Your task to perform on an android device: change your default location settings in chrome Image 0: 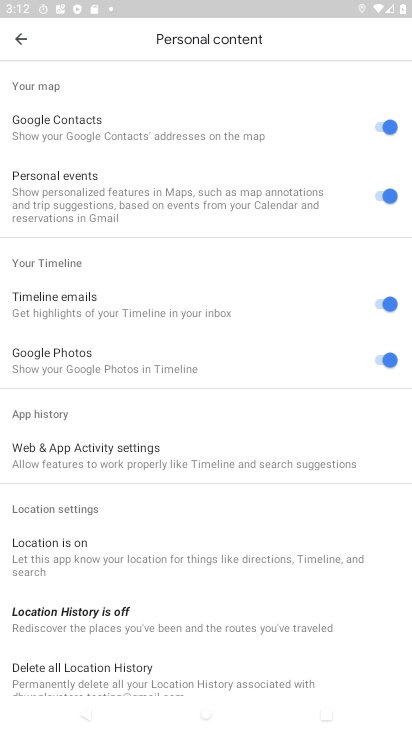
Step 0: press home button
Your task to perform on an android device: change your default location settings in chrome Image 1: 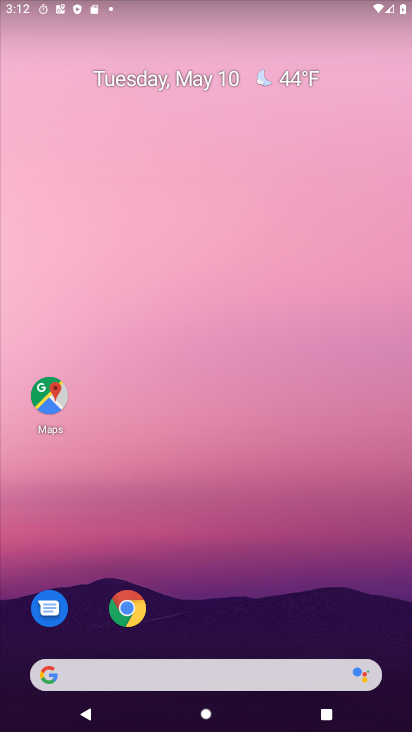
Step 1: click (130, 611)
Your task to perform on an android device: change your default location settings in chrome Image 2: 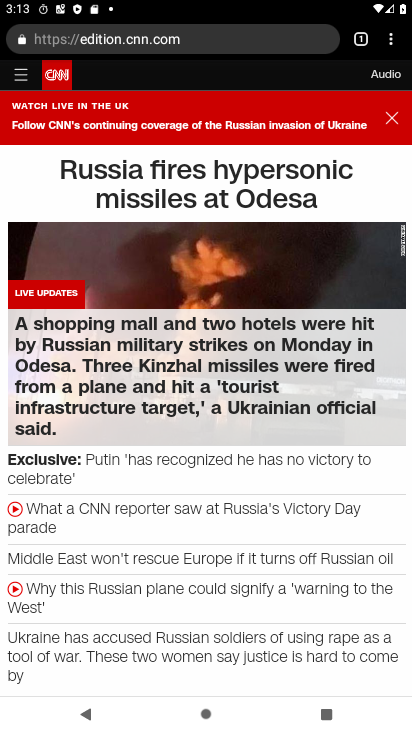
Step 2: click (394, 43)
Your task to perform on an android device: change your default location settings in chrome Image 3: 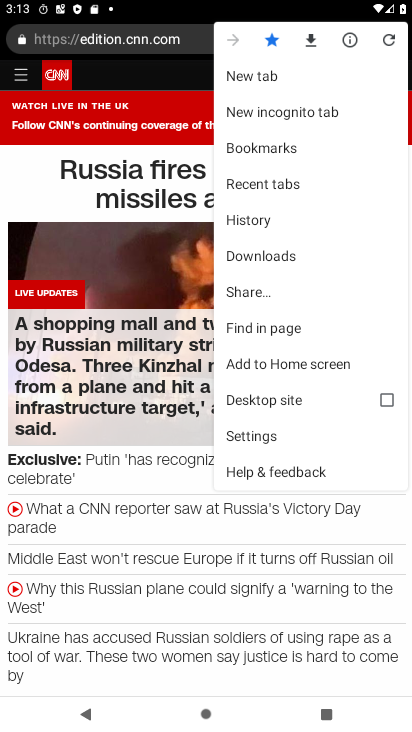
Step 3: click (251, 436)
Your task to perform on an android device: change your default location settings in chrome Image 4: 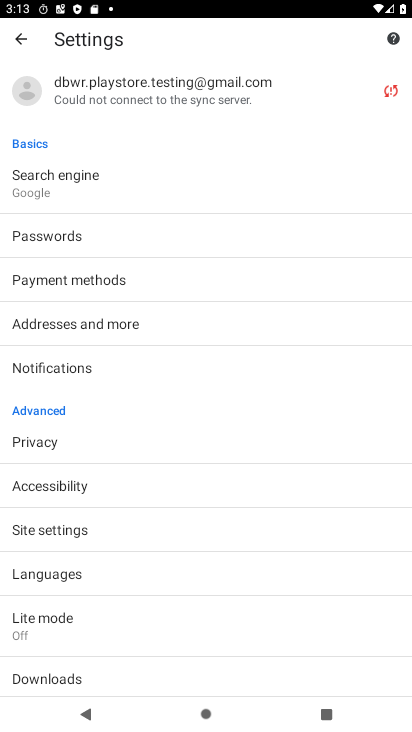
Step 4: click (35, 526)
Your task to perform on an android device: change your default location settings in chrome Image 5: 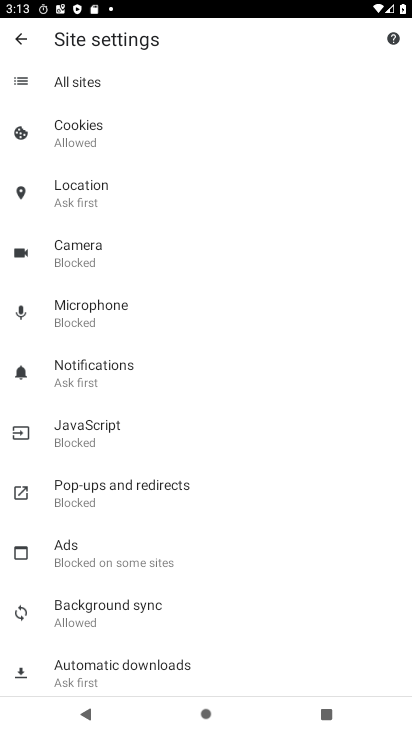
Step 5: click (89, 193)
Your task to perform on an android device: change your default location settings in chrome Image 6: 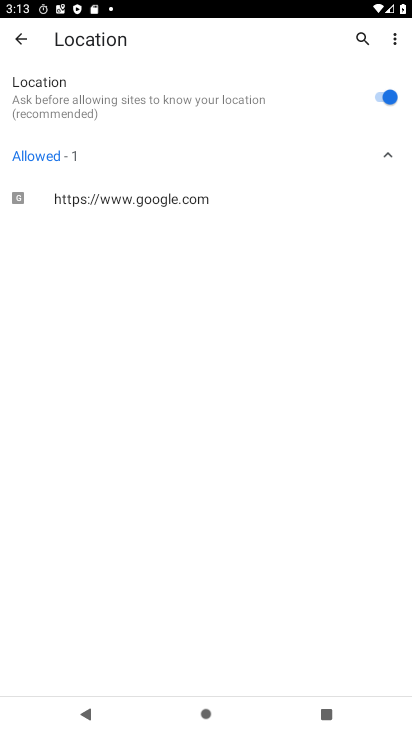
Step 6: click (384, 91)
Your task to perform on an android device: change your default location settings in chrome Image 7: 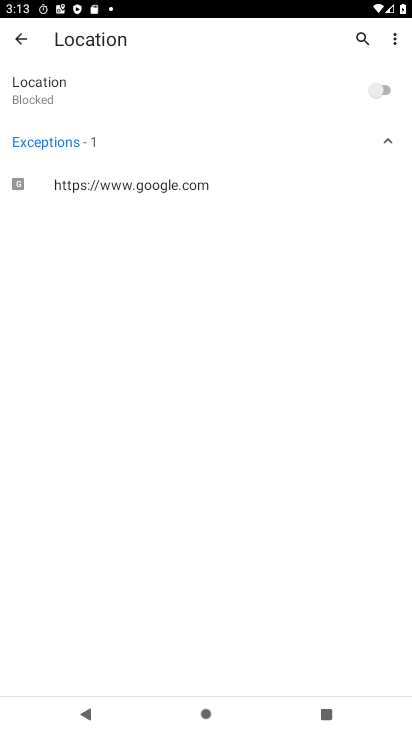
Step 7: task complete